Your task to perform on an android device: check the backup settings in the google photos Image 0: 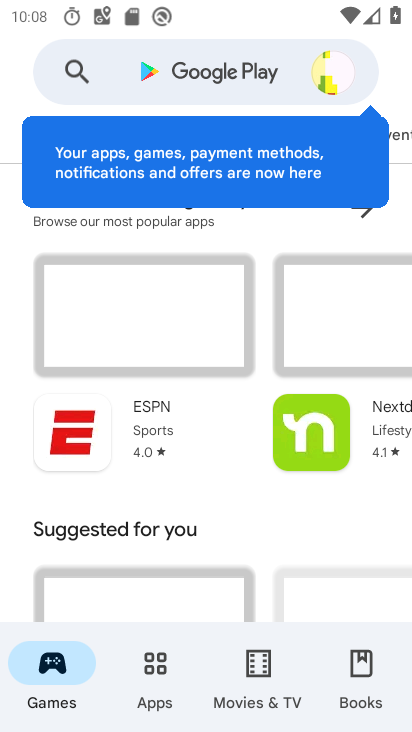
Step 0: press home button
Your task to perform on an android device: check the backup settings in the google photos Image 1: 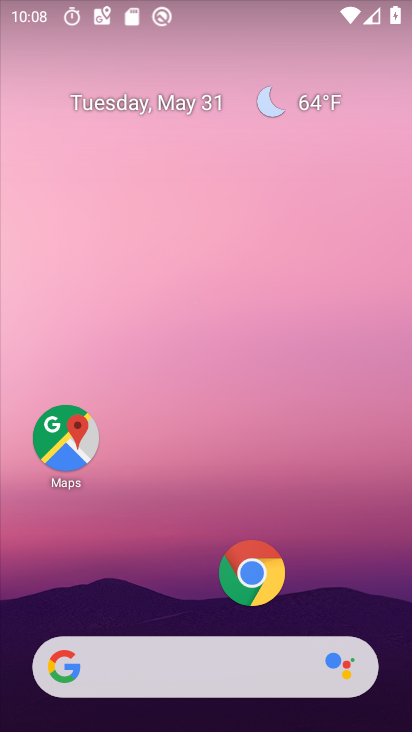
Step 1: drag from (194, 612) to (203, 19)
Your task to perform on an android device: check the backup settings in the google photos Image 2: 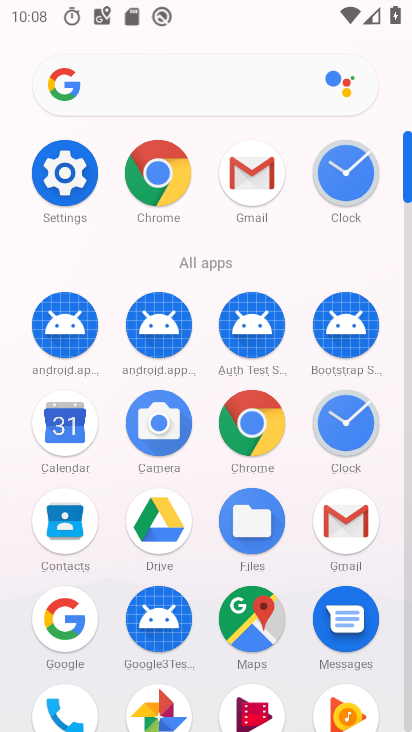
Step 2: click (154, 696)
Your task to perform on an android device: check the backup settings in the google photos Image 3: 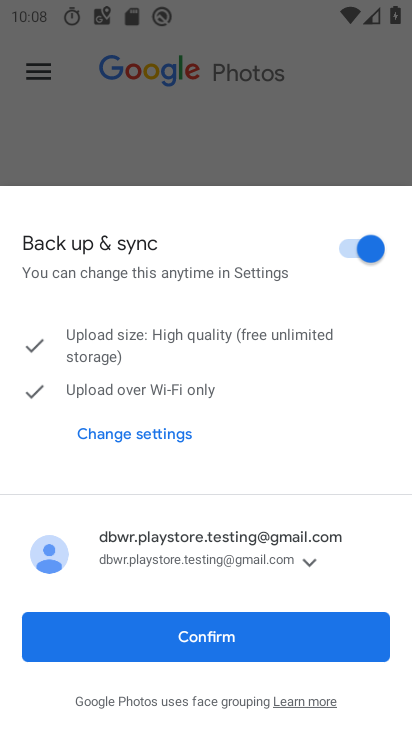
Step 3: click (216, 634)
Your task to perform on an android device: check the backup settings in the google photos Image 4: 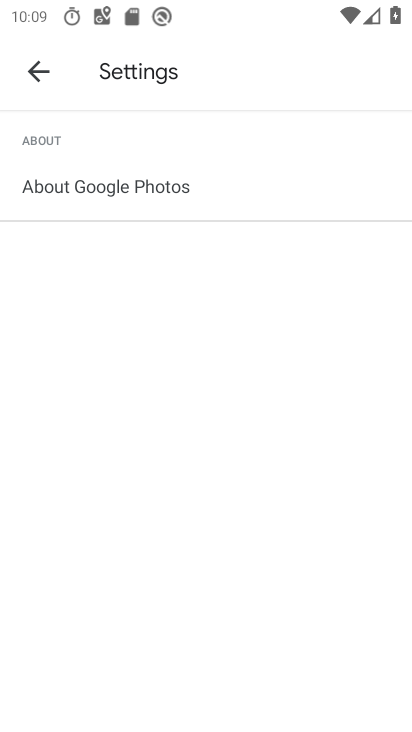
Step 4: click (39, 79)
Your task to perform on an android device: check the backup settings in the google photos Image 5: 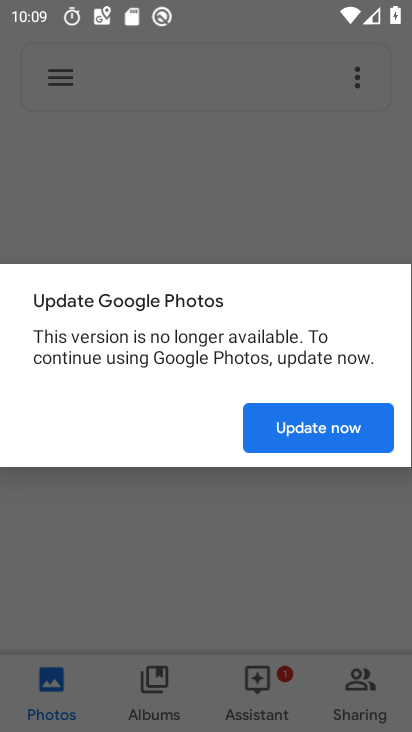
Step 5: click (301, 441)
Your task to perform on an android device: check the backup settings in the google photos Image 6: 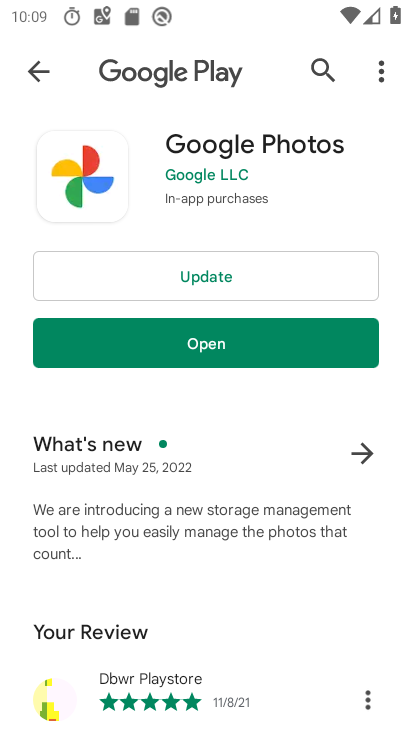
Step 6: click (219, 339)
Your task to perform on an android device: check the backup settings in the google photos Image 7: 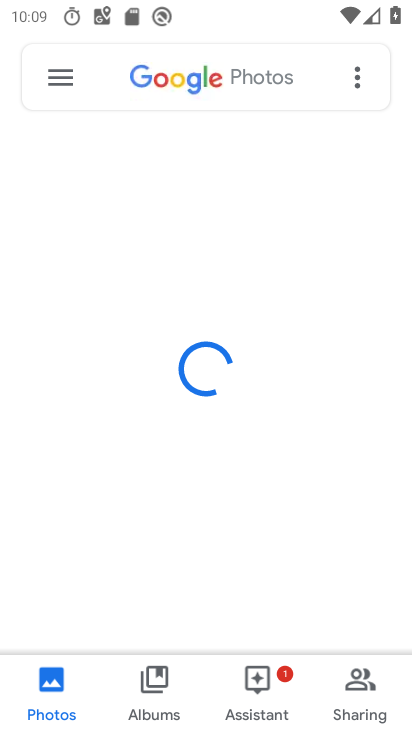
Step 7: click (74, 60)
Your task to perform on an android device: check the backup settings in the google photos Image 8: 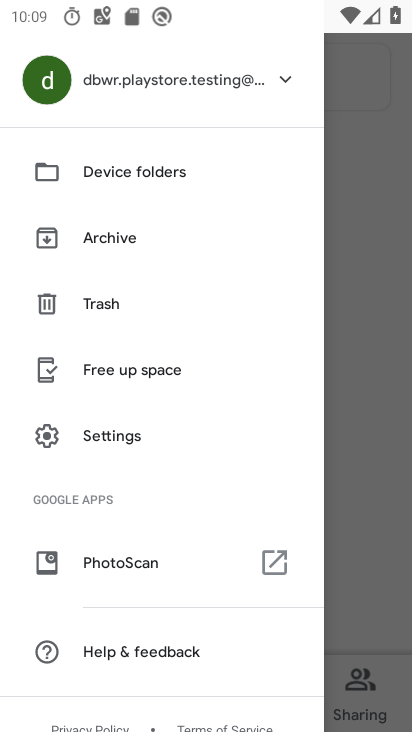
Step 8: click (82, 427)
Your task to perform on an android device: check the backup settings in the google photos Image 9: 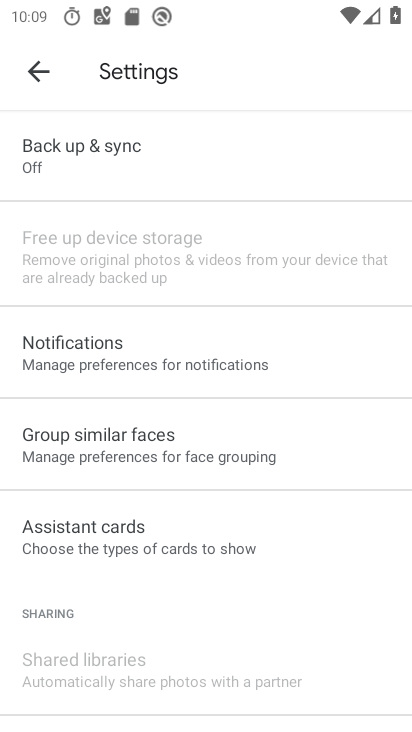
Step 9: click (172, 180)
Your task to perform on an android device: check the backup settings in the google photos Image 10: 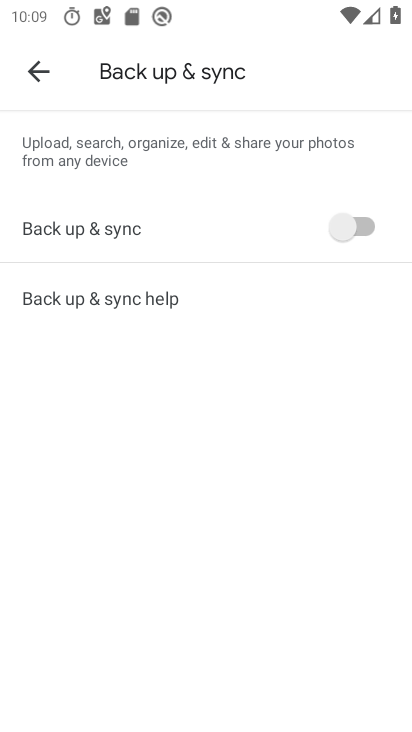
Step 10: task complete